Your task to perform on an android device: all mails in gmail Image 0: 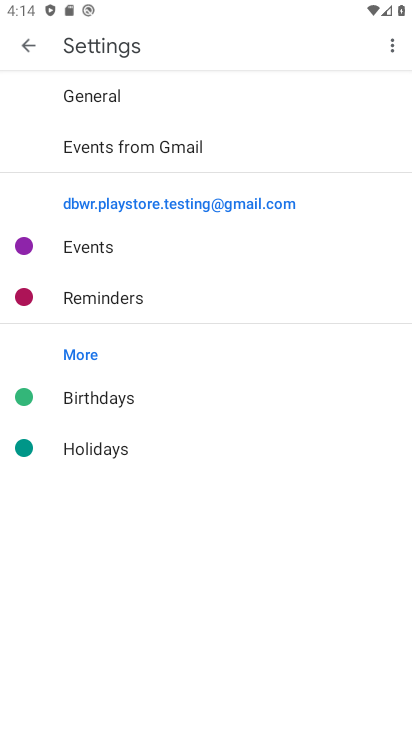
Step 0: click (30, 44)
Your task to perform on an android device: all mails in gmail Image 1: 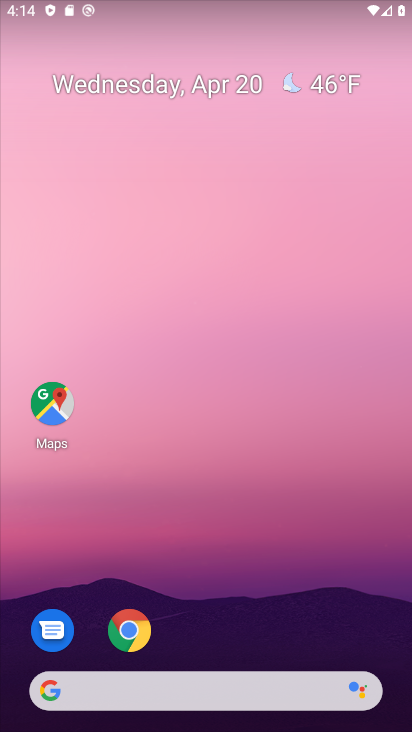
Step 1: drag from (175, 600) to (203, 194)
Your task to perform on an android device: all mails in gmail Image 2: 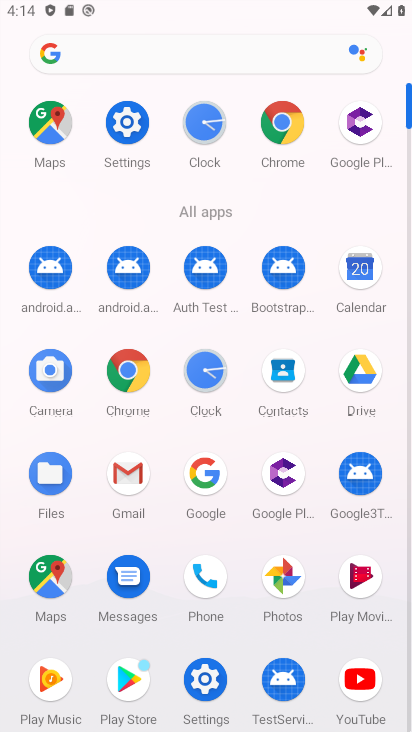
Step 2: click (125, 474)
Your task to perform on an android device: all mails in gmail Image 3: 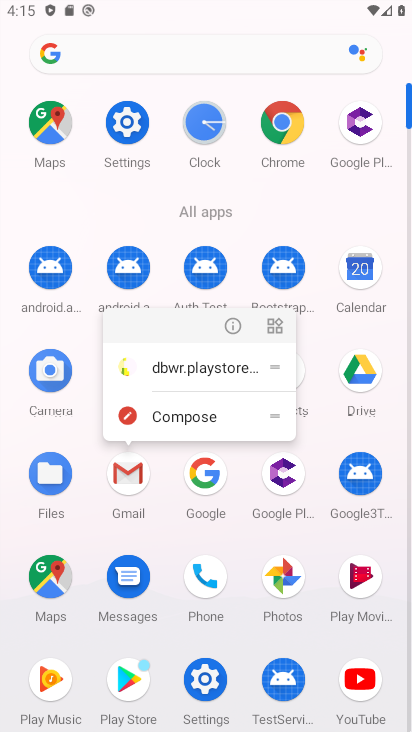
Step 3: click (144, 480)
Your task to perform on an android device: all mails in gmail Image 4: 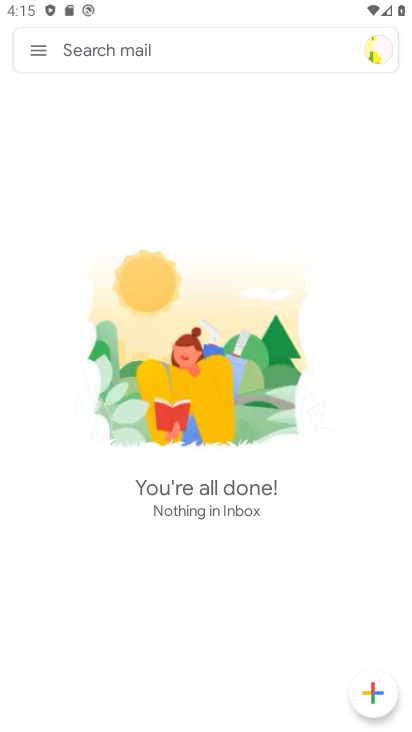
Step 4: click (44, 49)
Your task to perform on an android device: all mails in gmail Image 5: 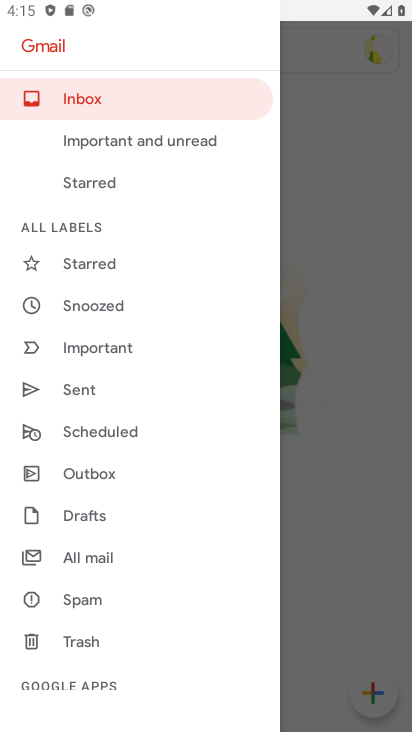
Step 5: click (80, 552)
Your task to perform on an android device: all mails in gmail Image 6: 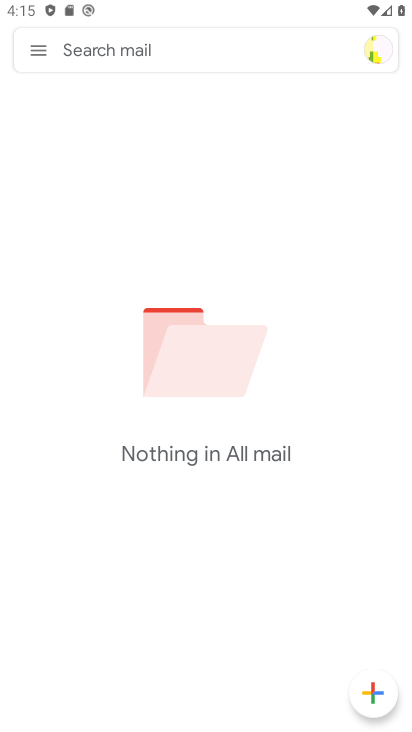
Step 6: task complete